Your task to perform on an android device: Search for sushi restaurants on Maps Image 0: 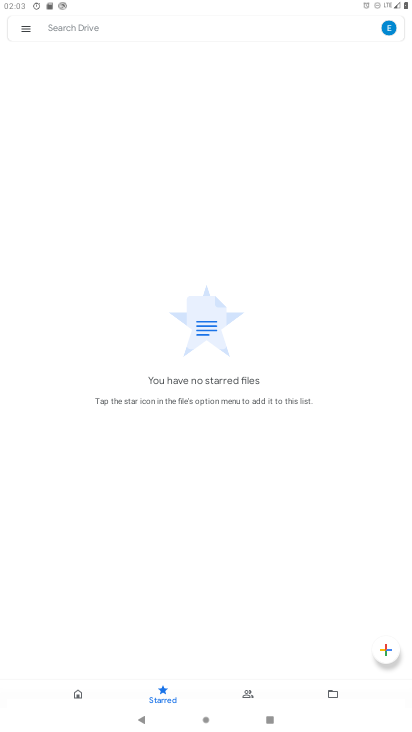
Step 0: press home button
Your task to perform on an android device: Search for sushi restaurants on Maps Image 1: 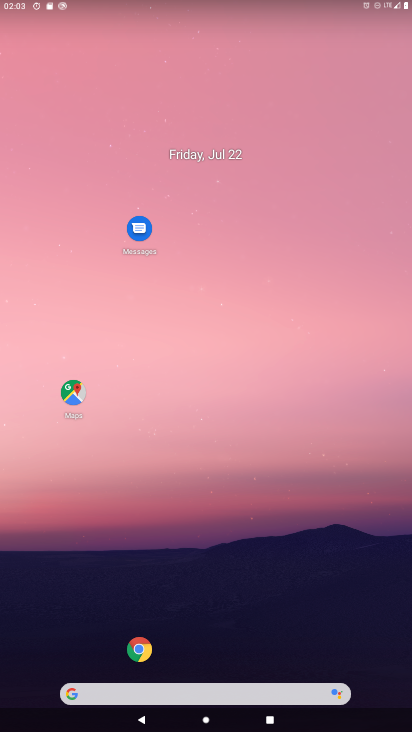
Step 1: click (84, 398)
Your task to perform on an android device: Search for sushi restaurants on Maps Image 2: 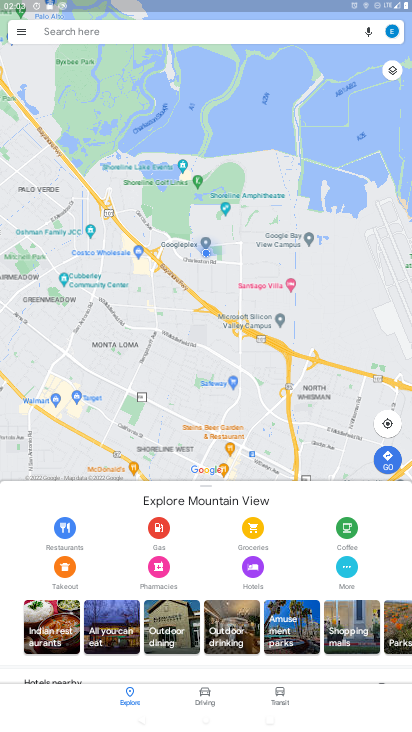
Step 2: click (57, 26)
Your task to perform on an android device: Search for sushi restaurants on Maps Image 3: 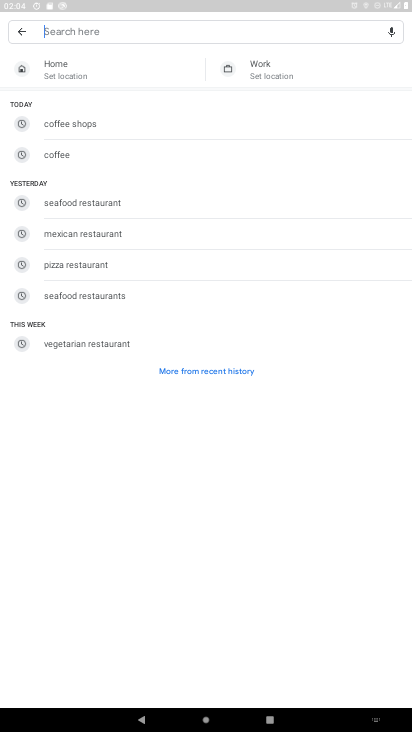
Step 3: type " sushi restaurants"
Your task to perform on an android device: Search for sushi restaurants on Maps Image 4: 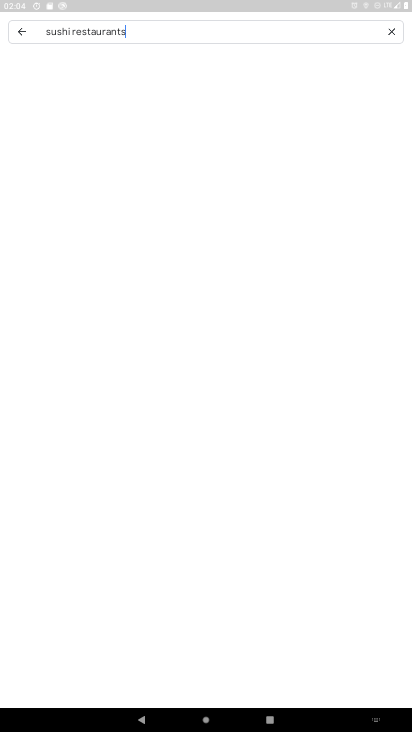
Step 4: type ""
Your task to perform on an android device: Search for sushi restaurants on Maps Image 5: 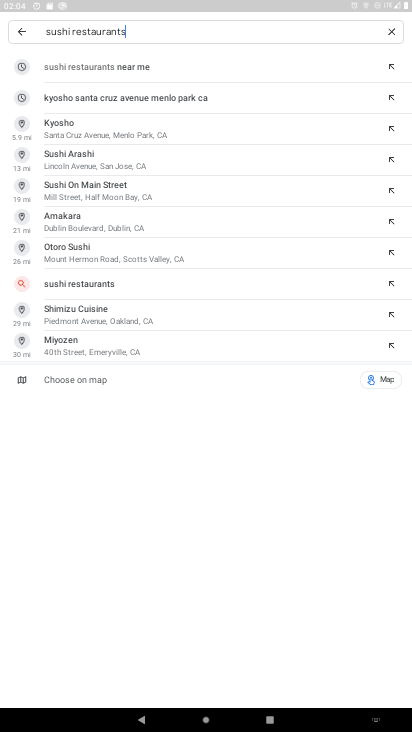
Step 5: type ""
Your task to perform on an android device: Search for sushi restaurants on Maps Image 6: 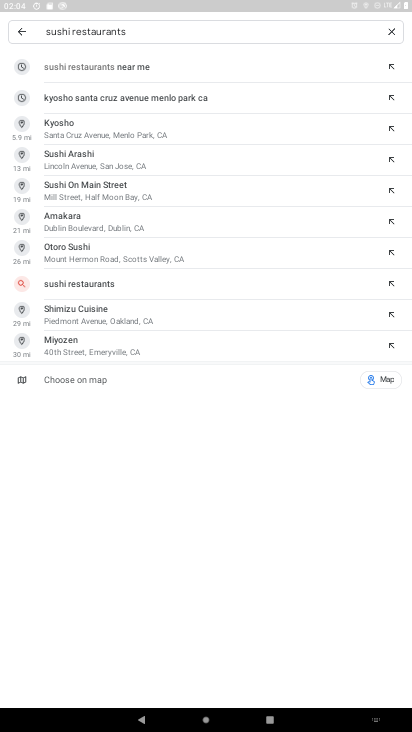
Step 6: type ""
Your task to perform on an android device: Search for sushi restaurants on Maps Image 7: 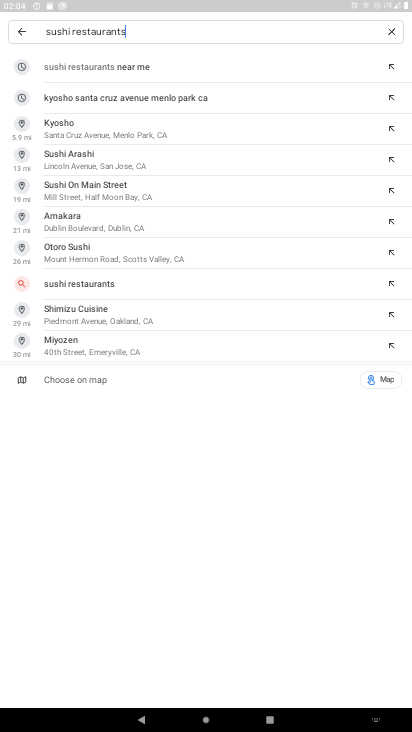
Step 7: task complete